Your task to perform on an android device: Open location settings Image 0: 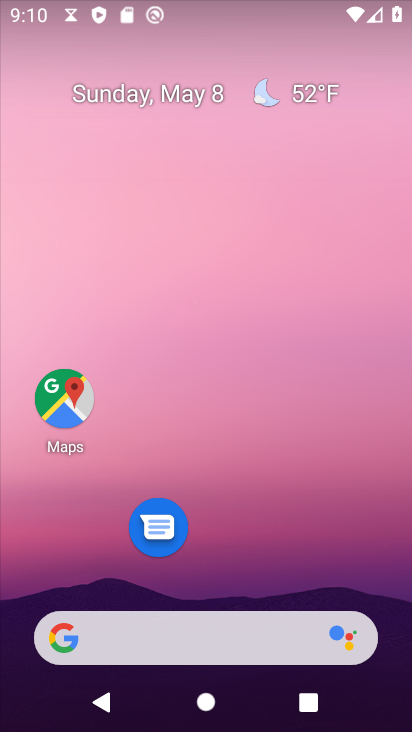
Step 0: drag from (253, 528) to (281, 35)
Your task to perform on an android device: Open location settings Image 1: 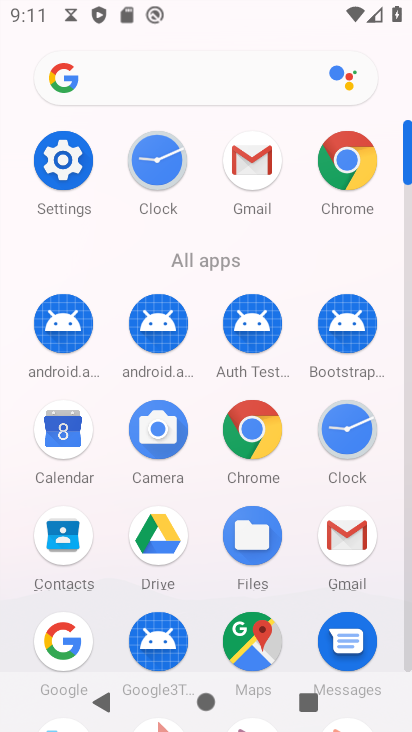
Step 1: click (62, 159)
Your task to perform on an android device: Open location settings Image 2: 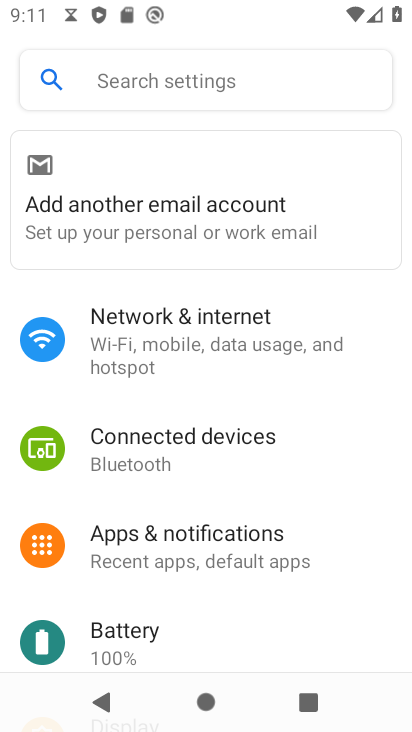
Step 2: drag from (180, 486) to (200, 380)
Your task to perform on an android device: Open location settings Image 3: 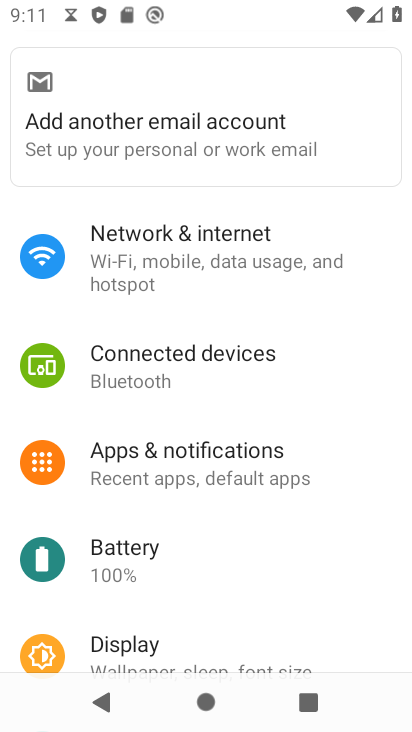
Step 3: drag from (187, 515) to (232, 389)
Your task to perform on an android device: Open location settings Image 4: 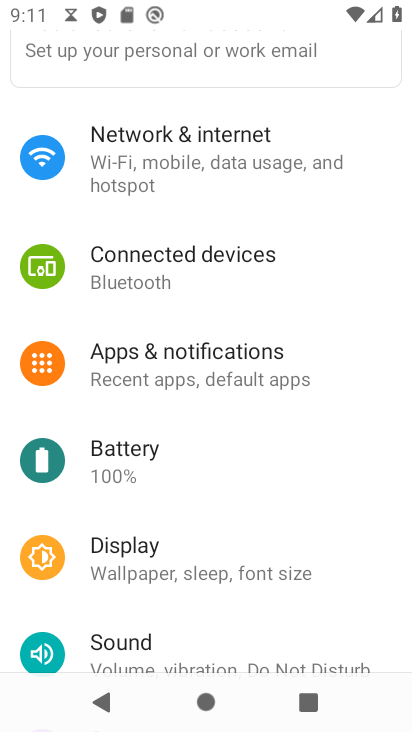
Step 4: drag from (182, 494) to (230, 365)
Your task to perform on an android device: Open location settings Image 5: 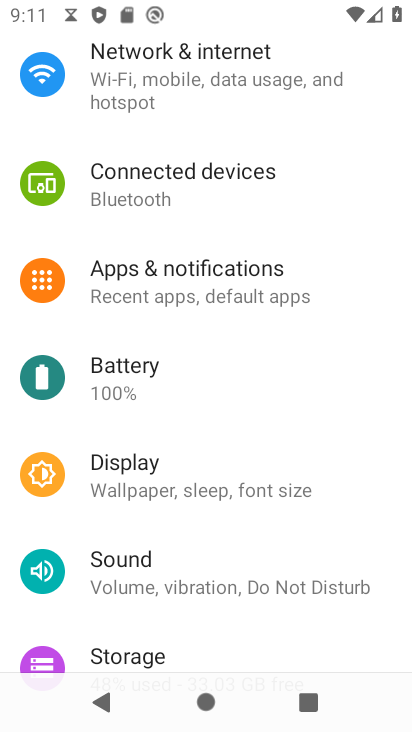
Step 5: drag from (173, 536) to (216, 404)
Your task to perform on an android device: Open location settings Image 6: 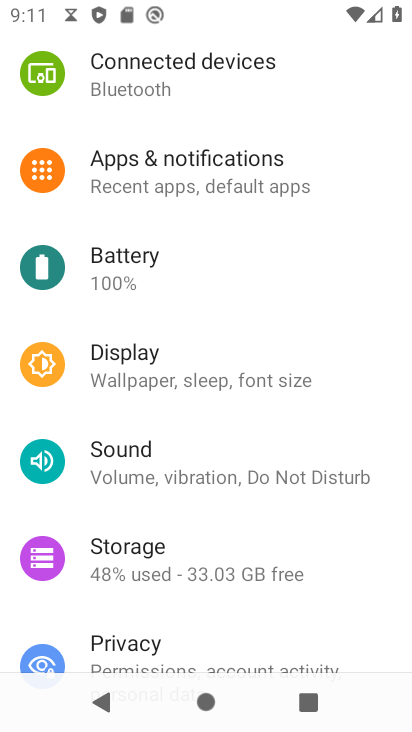
Step 6: drag from (185, 517) to (263, 381)
Your task to perform on an android device: Open location settings Image 7: 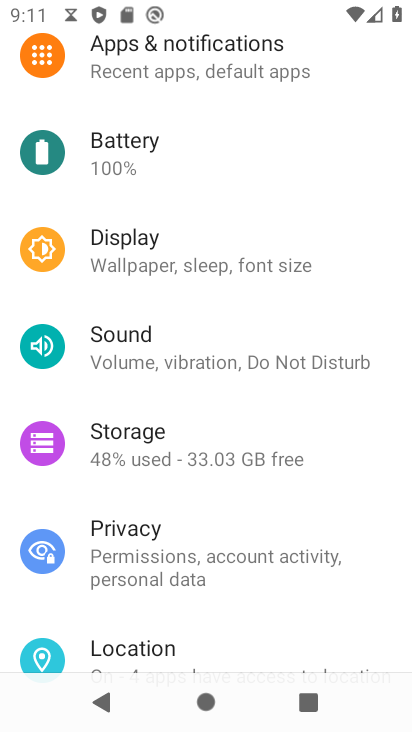
Step 7: drag from (191, 522) to (282, 397)
Your task to perform on an android device: Open location settings Image 8: 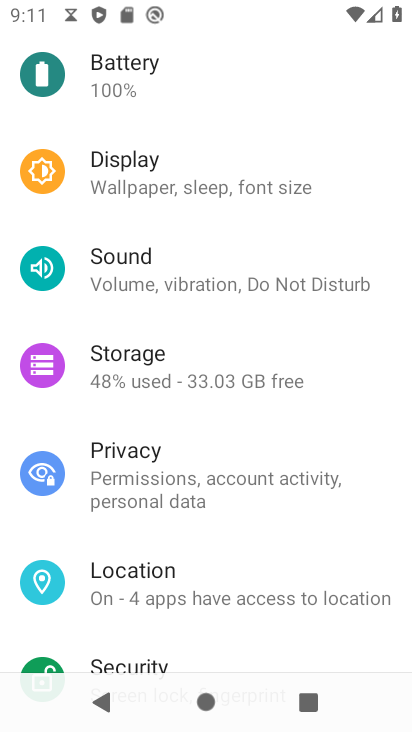
Step 8: click (142, 577)
Your task to perform on an android device: Open location settings Image 9: 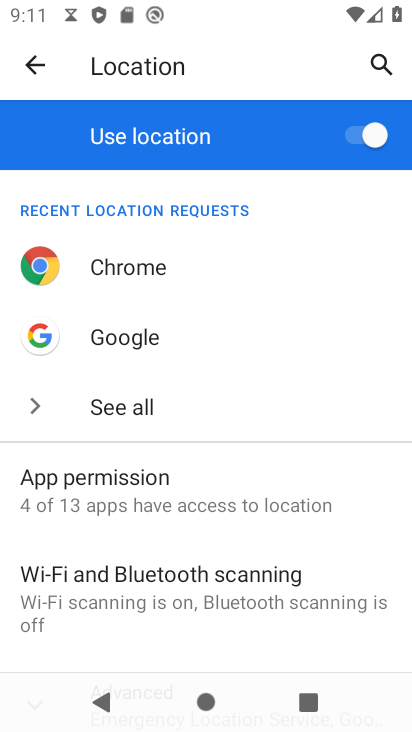
Step 9: task complete